Your task to perform on an android device: see tabs open on other devices in the chrome app Image 0: 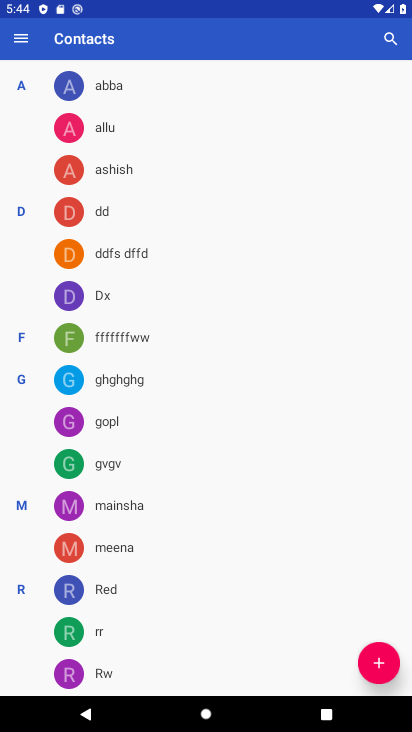
Step 0: press home button
Your task to perform on an android device: see tabs open on other devices in the chrome app Image 1: 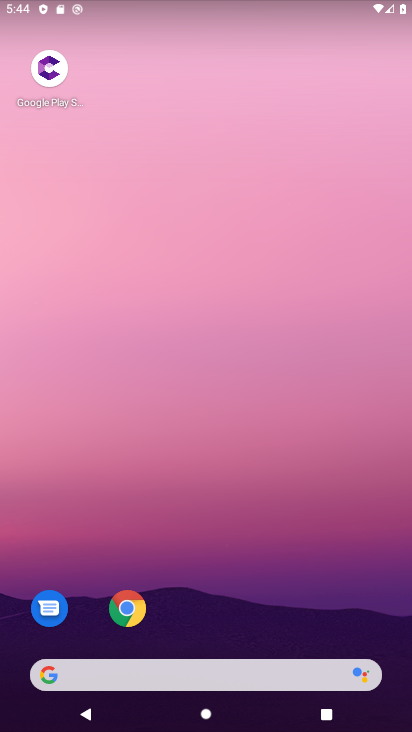
Step 1: click (126, 607)
Your task to perform on an android device: see tabs open on other devices in the chrome app Image 2: 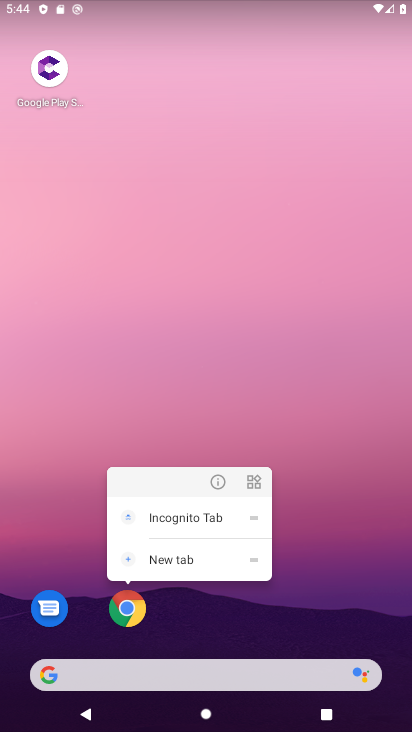
Step 2: click (126, 607)
Your task to perform on an android device: see tabs open on other devices in the chrome app Image 3: 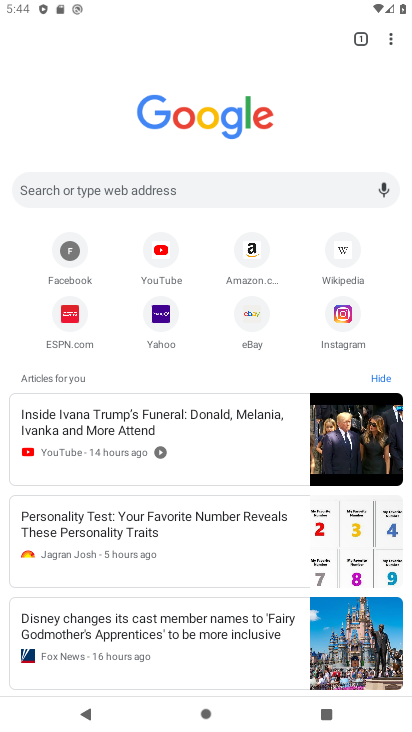
Step 3: click (392, 36)
Your task to perform on an android device: see tabs open on other devices in the chrome app Image 4: 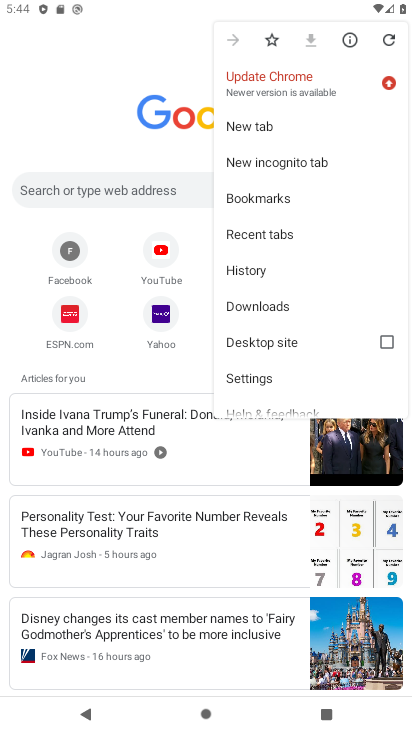
Step 4: click (276, 234)
Your task to perform on an android device: see tabs open on other devices in the chrome app Image 5: 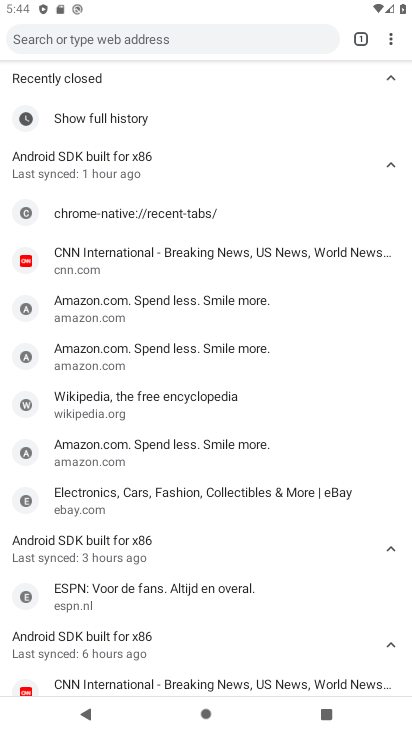
Step 5: task complete